Your task to perform on an android device: delete a single message in the gmail app Image 0: 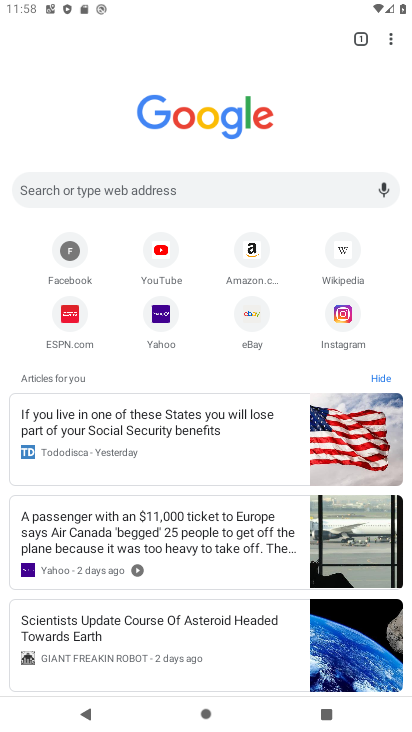
Step 0: press home button
Your task to perform on an android device: delete a single message in the gmail app Image 1: 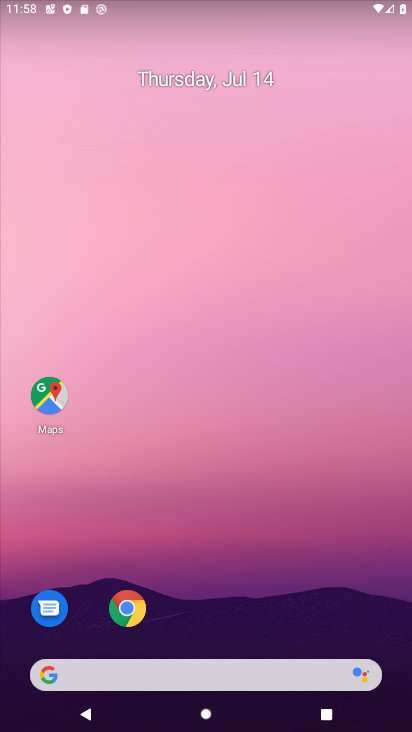
Step 1: drag from (197, 596) to (213, 124)
Your task to perform on an android device: delete a single message in the gmail app Image 2: 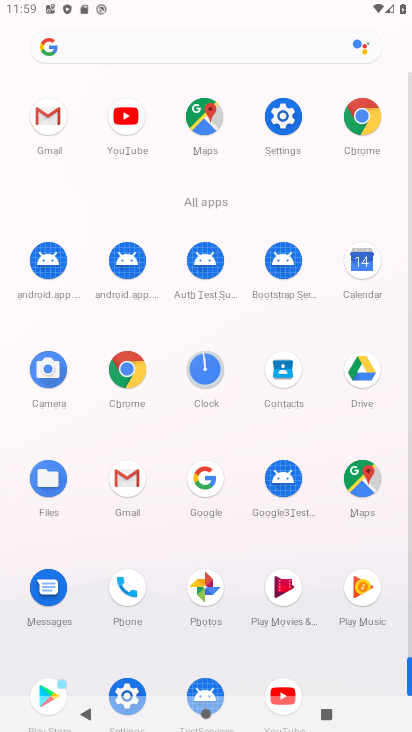
Step 2: click (136, 477)
Your task to perform on an android device: delete a single message in the gmail app Image 3: 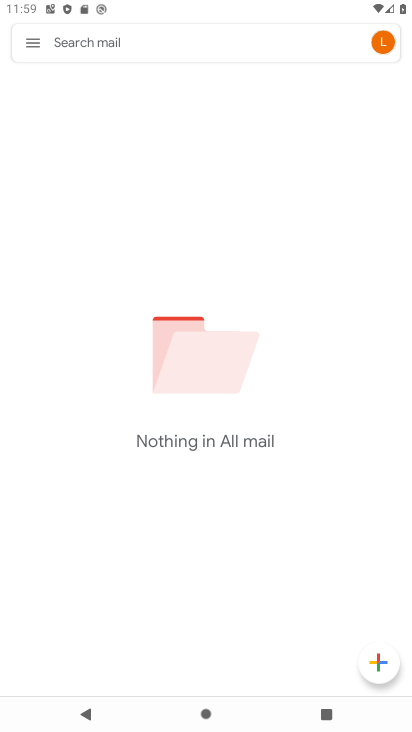
Step 3: task complete